Your task to perform on an android device: open wifi settings Image 0: 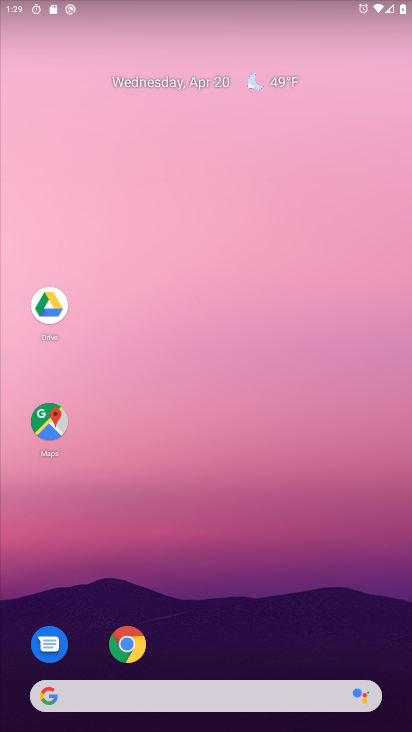
Step 0: drag from (207, 626) to (252, 105)
Your task to perform on an android device: open wifi settings Image 1: 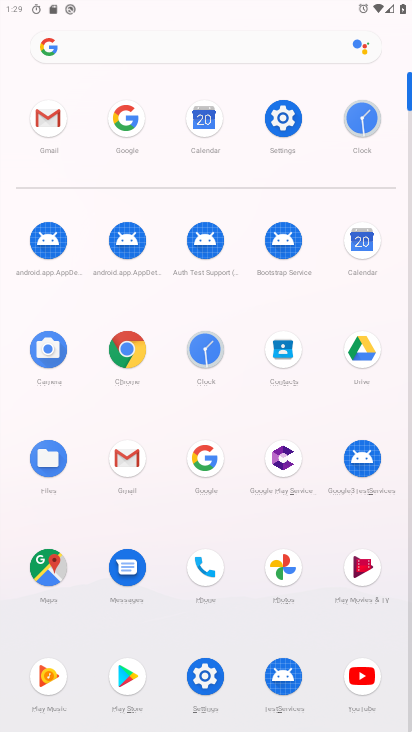
Step 1: click (282, 112)
Your task to perform on an android device: open wifi settings Image 2: 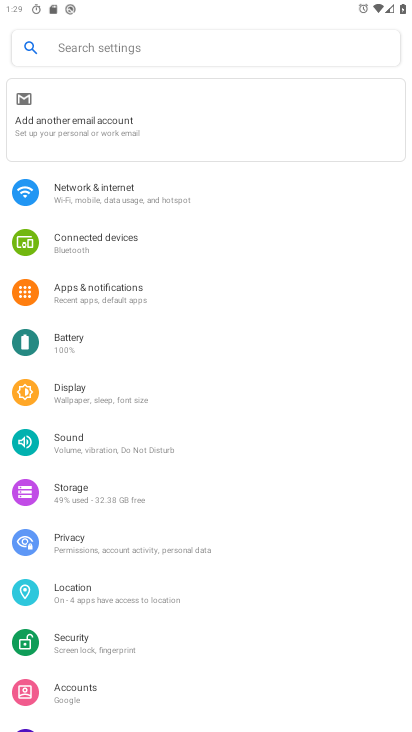
Step 2: click (145, 190)
Your task to perform on an android device: open wifi settings Image 3: 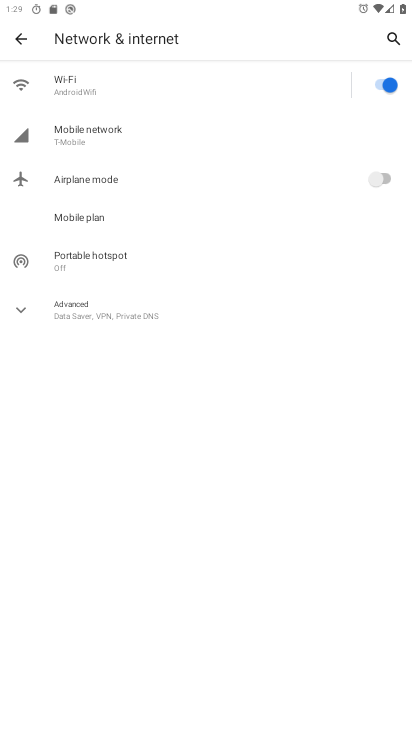
Step 3: click (111, 83)
Your task to perform on an android device: open wifi settings Image 4: 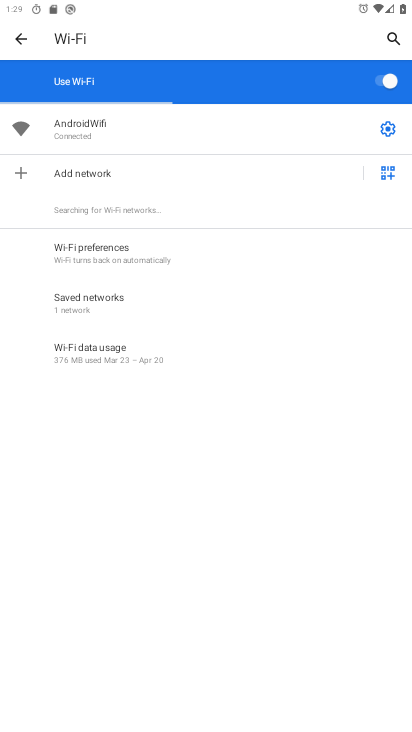
Step 4: task complete